Your task to perform on an android device: Open calendar and show me the fourth week of next month Image 0: 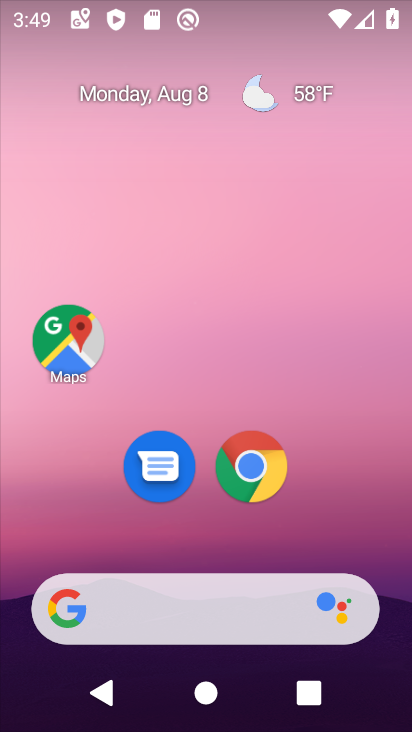
Step 0: drag from (222, 559) to (252, 104)
Your task to perform on an android device: Open calendar and show me the fourth week of next month Image 1: 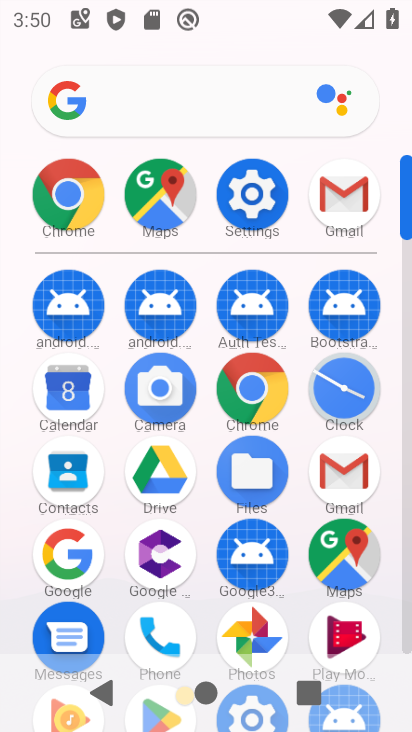
Step 1: click (57, 387)
Your task to perform on an android device: Open calendar and show me the fourth week of next month Image 2: 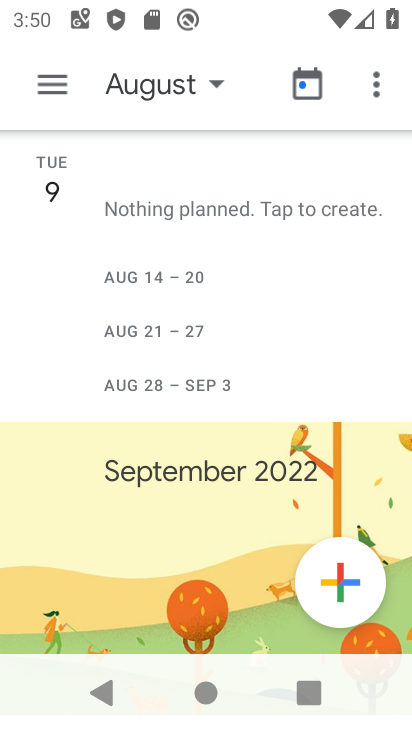
Step 2: click (36, 84)
Your task to perform on an android device: Open calendar and show me the fourth week of next month Image 3: 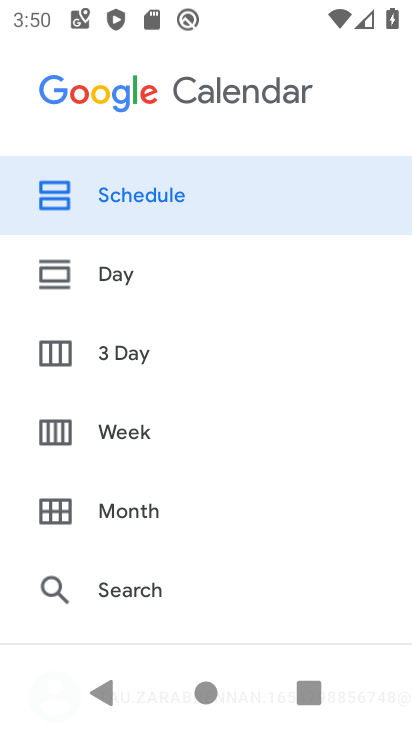
Step 3: click (164, 494)
Your task to perform on an android device: Open calendar and show me the fourth week of next month Image 4: 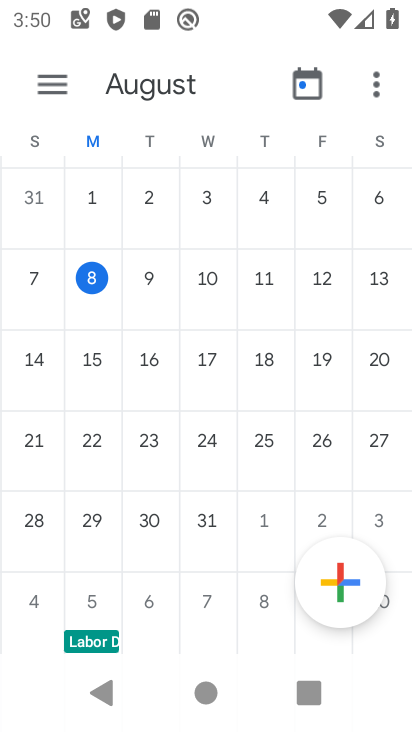
Step 4: click (40, 67)
Your task to perform on an android device: Open calendar and show me the fourth week of next month Image 5: 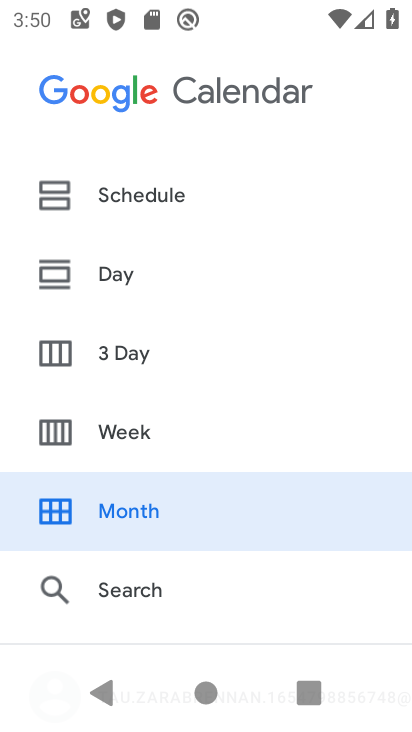
Step 5: click (145, 411)
Your task to perform on an android device: Open calendar and show me the fourth week of next month Image 6: 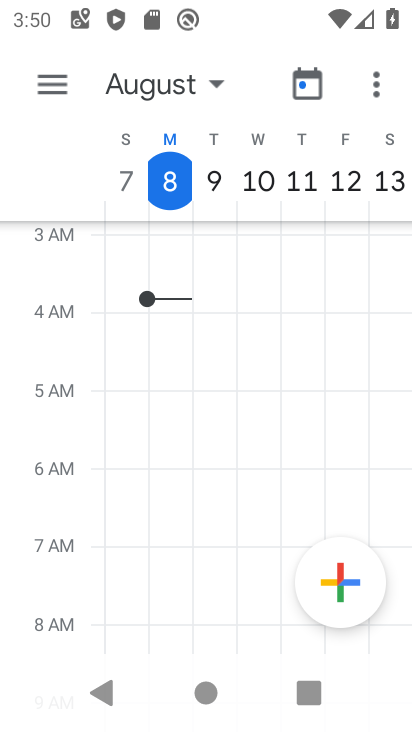
Step 6: task complete